Your task to perform on an android device: turn on wifi Image 0: 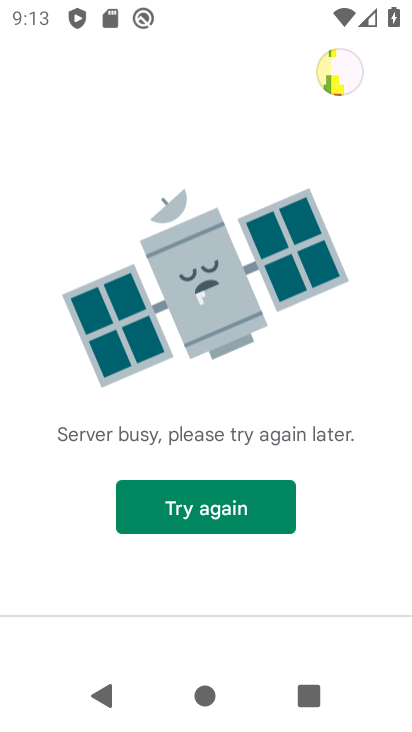
Step 0: press home button
Your task to perform on an android device: turn on wifi Image 1: 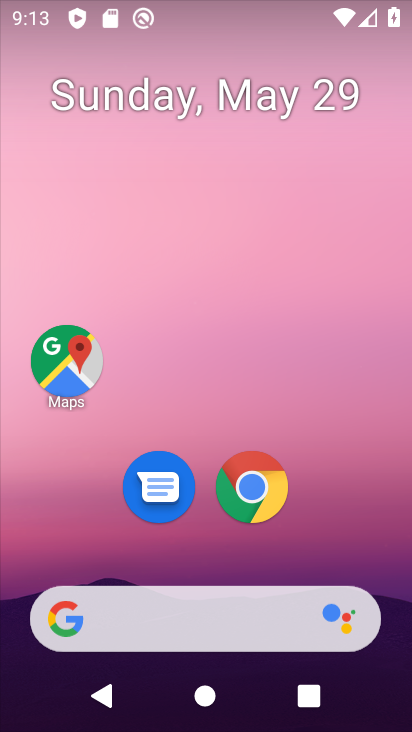
Step 1: drag from (384, 639) to (353, 74)
Your task to perform on an android device: turn on wifi Image 2: 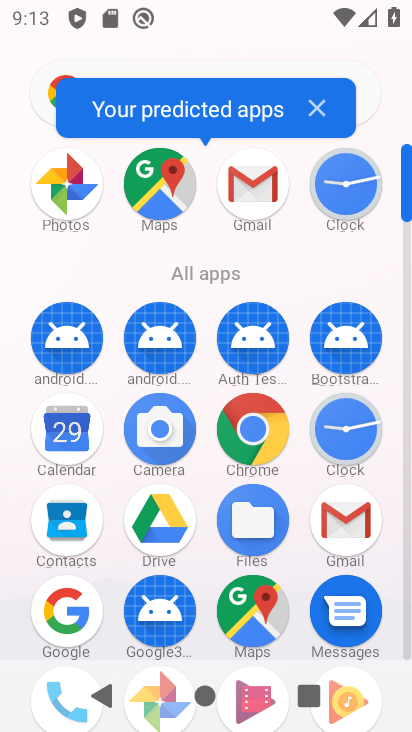
Step 2: drag from (203, 604) to (186, 190)
Your task to perform on an android device: turn on wifi Image 3: 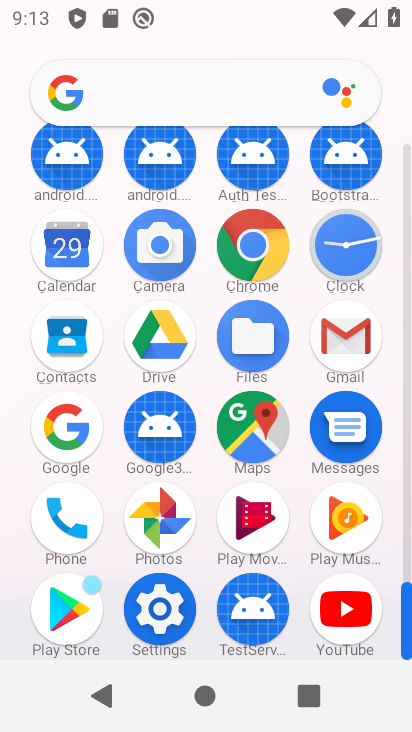
Step 3: click (142, 613)
Your task to perform on an android device: turn on wifi Image 4: 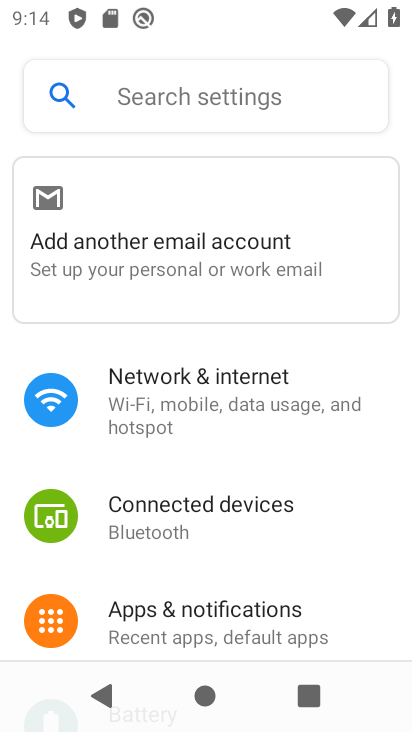
Step 4: click (228, 390)
Your task to perform on an android device: turn on wifi Image 5: 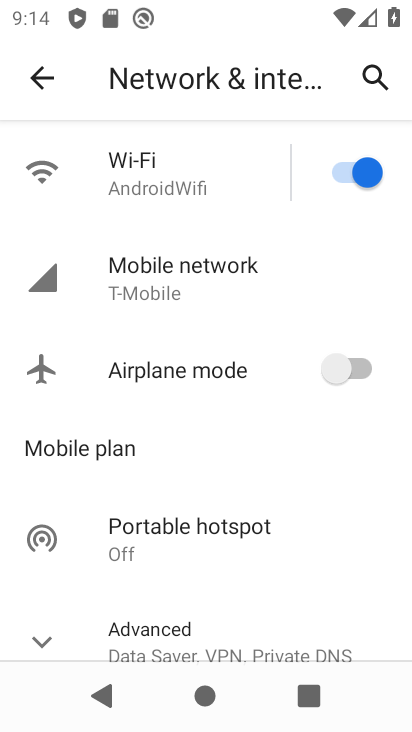
Step 5: task complete